Your task to perform on an android device: What's the price of the Samsung TV? Image 0: 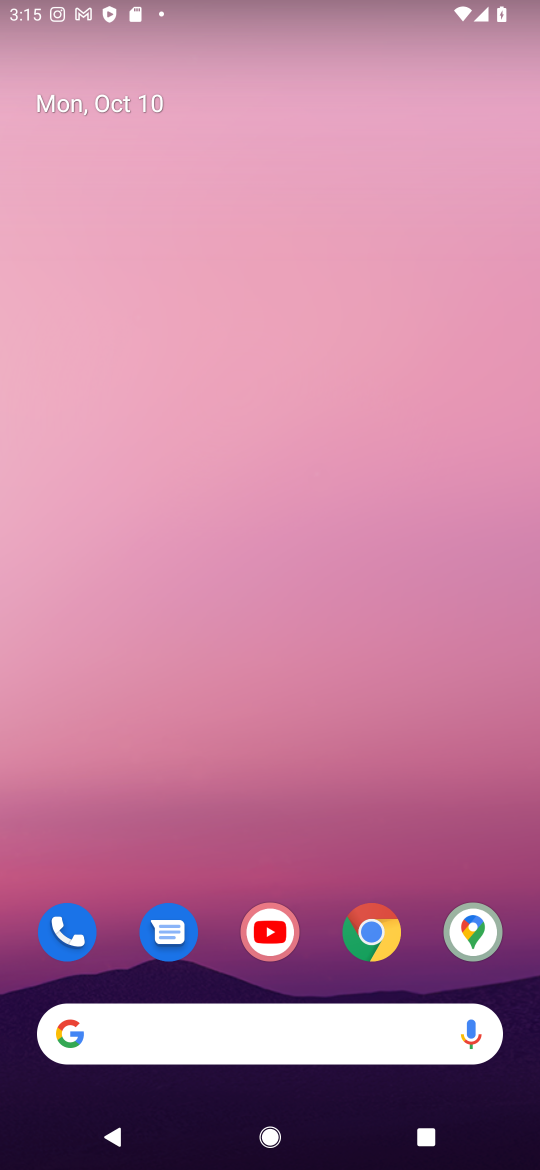
Step 0: press home button
Your task to perform on an android device: What's the price of the Samsung TV? Image 1: 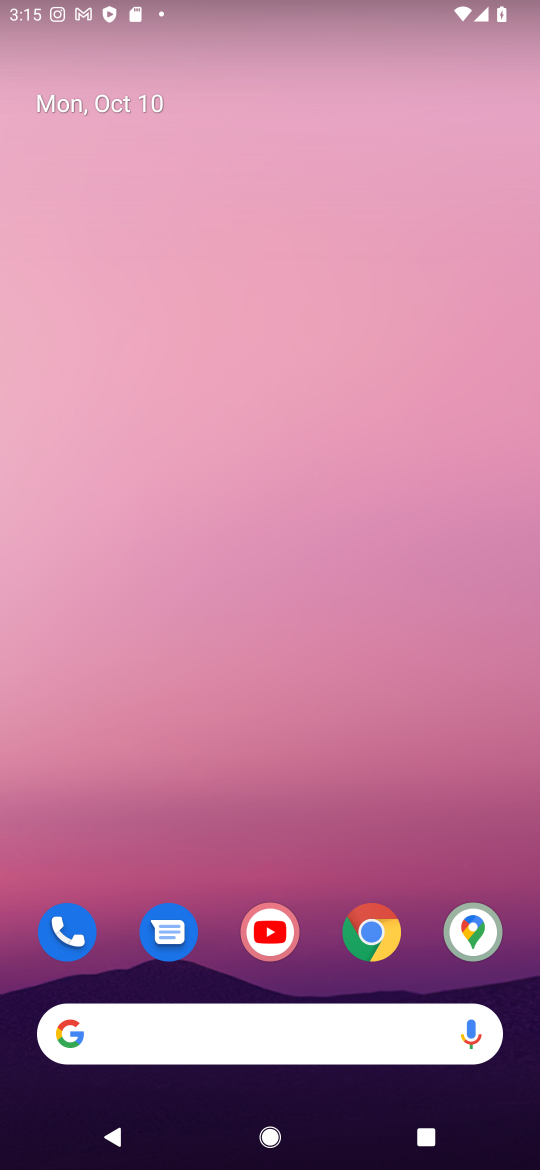
Step 1: click (283, 1043)
Your task to perform on an android device: What's the price of the Samsung TV? Image 2: 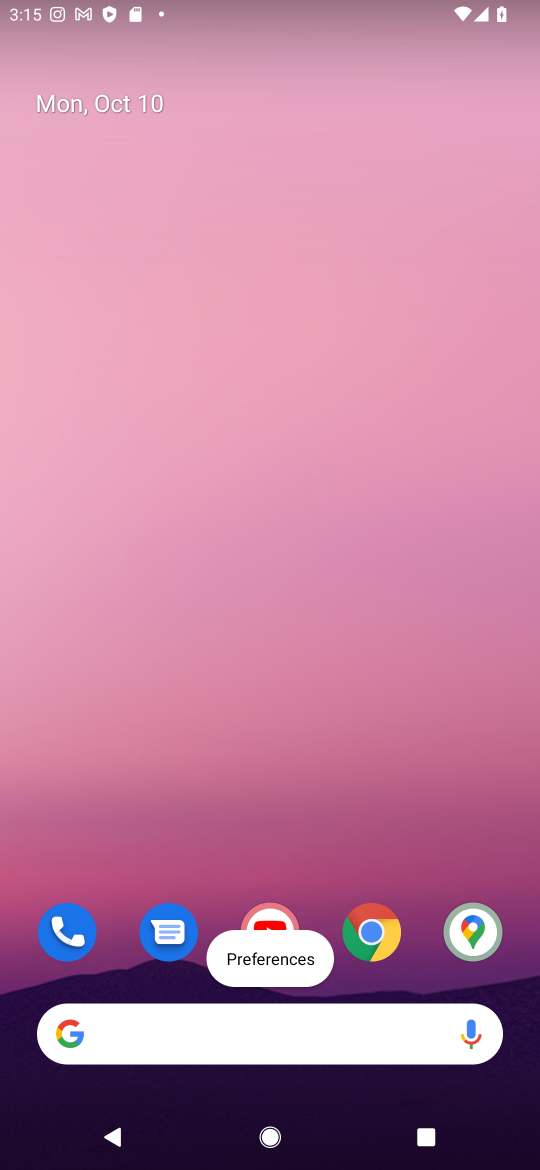
Step 2: click (224, 1042)
Your task to perform on an android device: What's the price of the Samsung TV? Image 3: 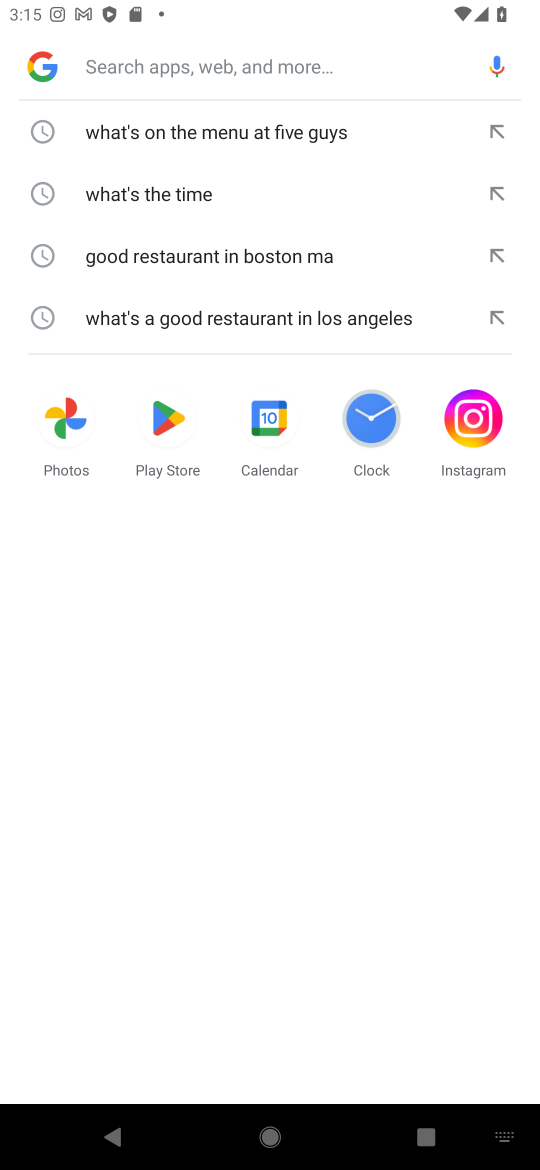
Step 3: type "What's the price of the Samsung TV"
Your task to perform on an android device: What's the price of the Samsung TV? Image 4: 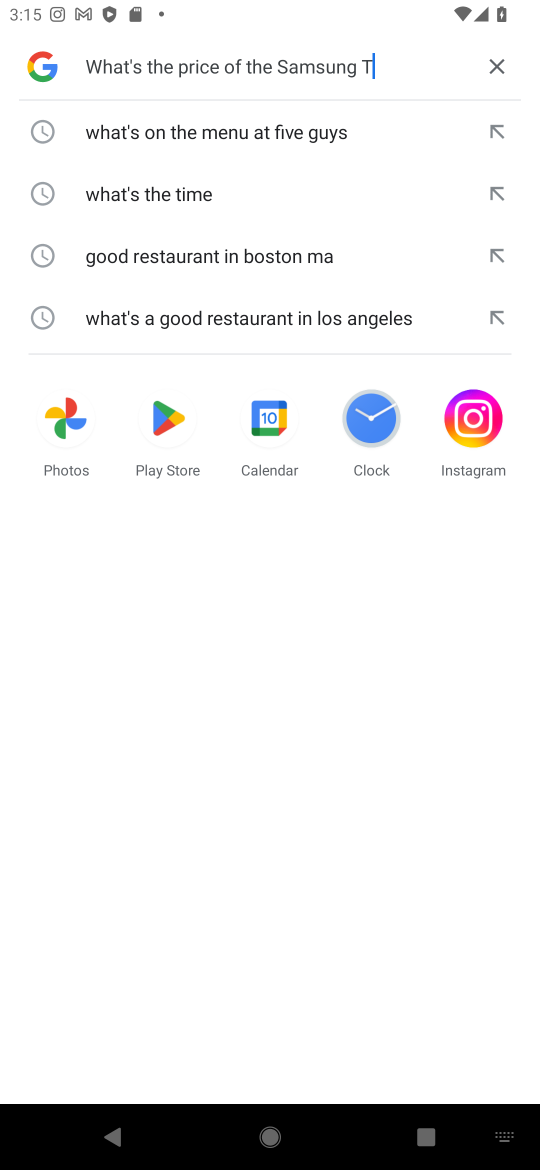
Step 4: press enter
Your task to perform on an android device: What's the price of the Samsung TV? Image 5: 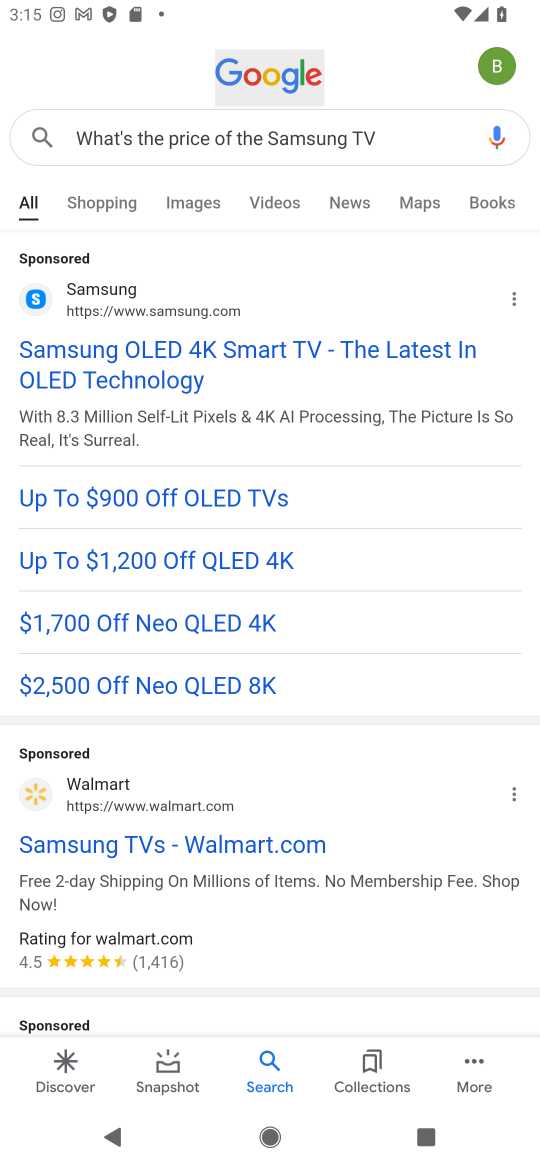
Step 5: click (284, 348)
Your task to perform on an android device: What's the price of the Samsung TV? Image 6: 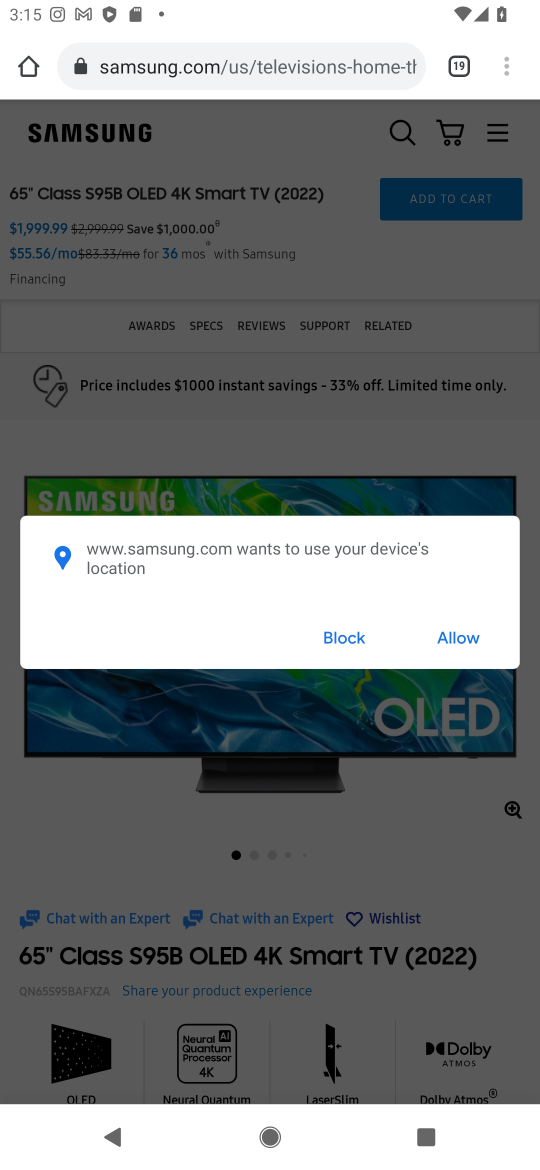
Step 6: click (464, 637)
Your task to perform on an android device: What's the price of the Samsung TV? Image 7: 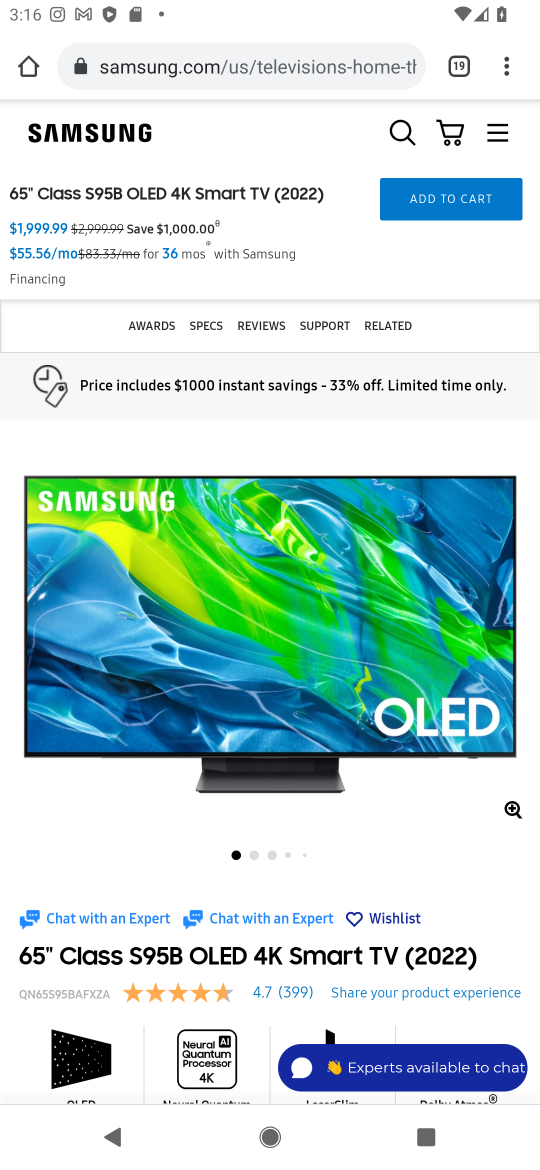
Step 7: task complete